Your task to perform on an android device: turn on location history Image 0: 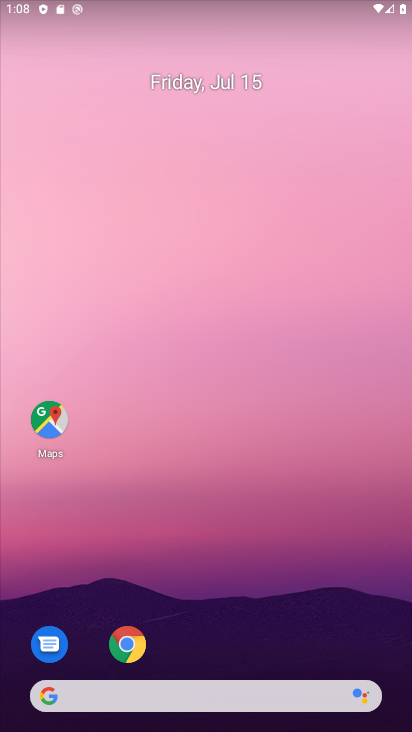
Step 0: press home button
Your task to perform on an android device: turn on location history Image 1: 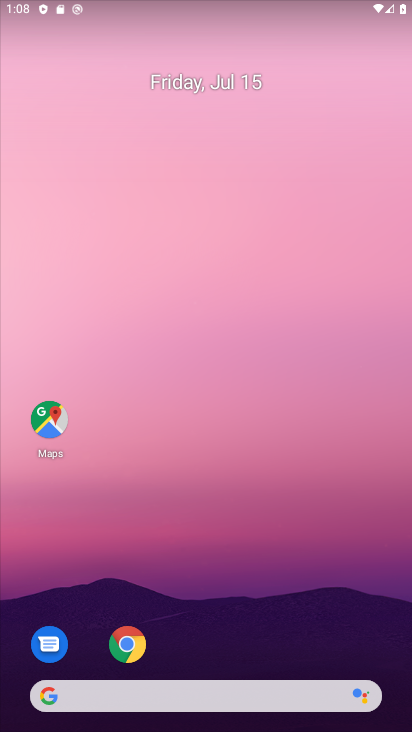
Step 1: drag from (387, 677) to (285, 36)
Your task to perform on an android device: turn on location history Image 2: 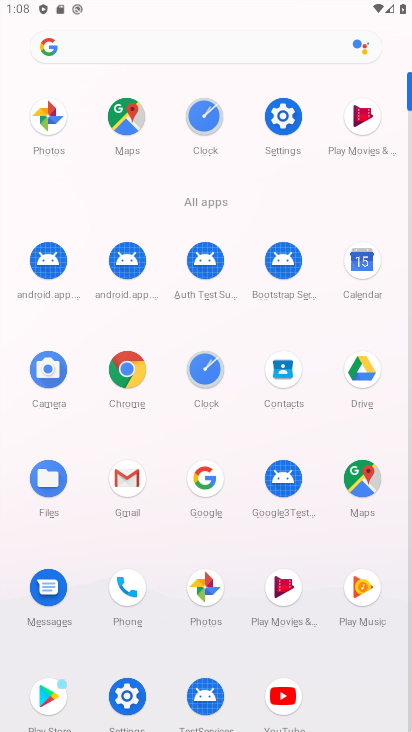
Step 2: click (281, 122)
Your task to perform on an android device: turn on location history Image 3: 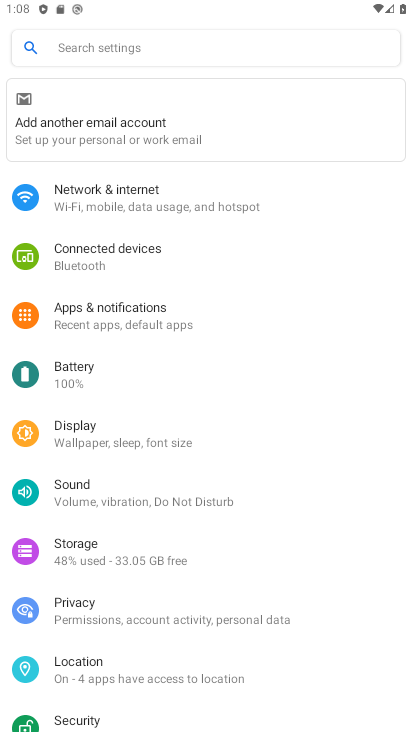
Step 3: click (84, 651)
Your task to perform on an android device: turn on location history Image 4: 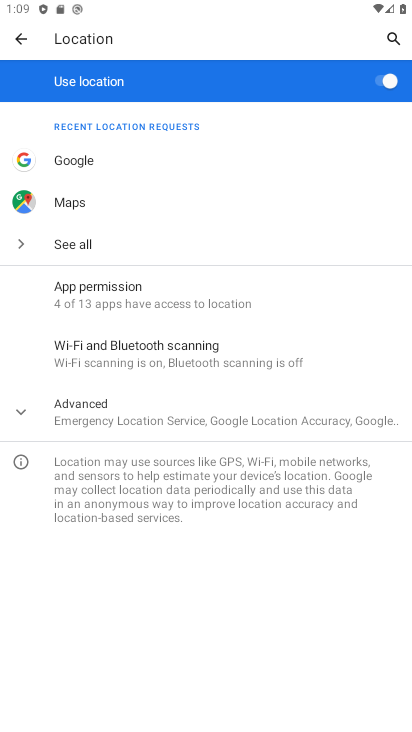
Step 4: click (29, 407)
Your task to perform on an android device: turn on location history Image 5: 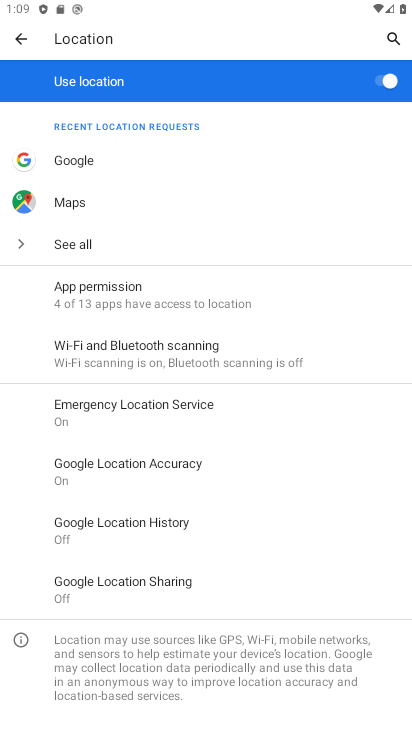
Step 5: click (89, 542)
Your task to perform on an android device: turn on location history Image 6: 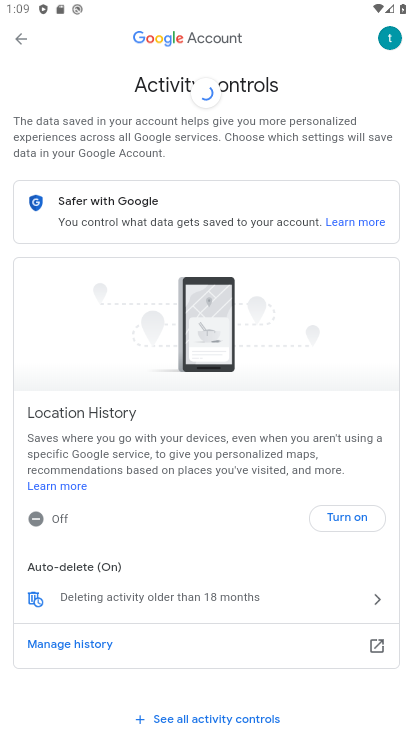
Step 6: click (53, 511)
Your task to perform on an android device: turn on location history Image 7: 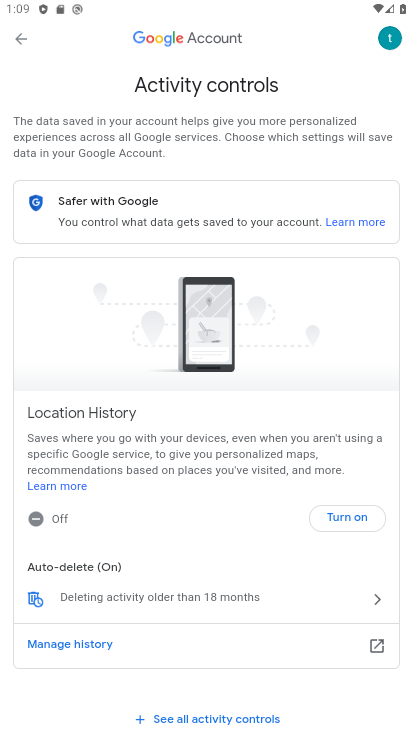
Step 7: click (352, 514)
Your task to perform on an android device: turn on location history Image 8: 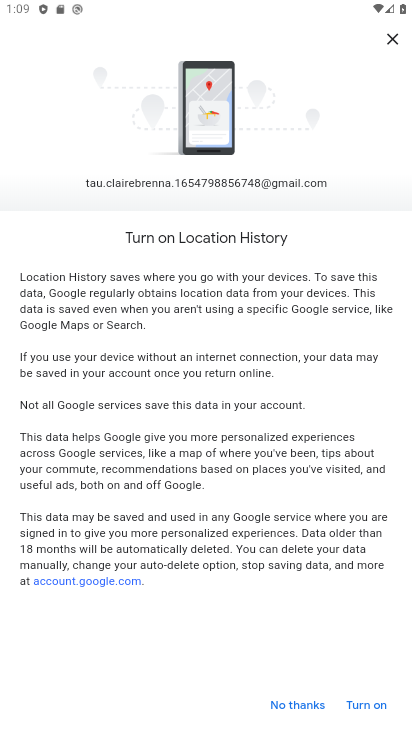
Step 8: drag from (232, 634) to (219, 297)
Your task to perform on an android device: turn on location history Image 9: 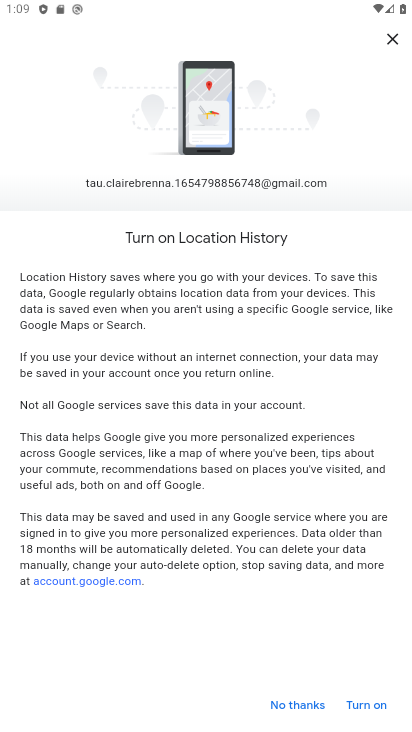
Step 9: click (368, 711)
Your task to perform on an android device: turn on location history Image 10: 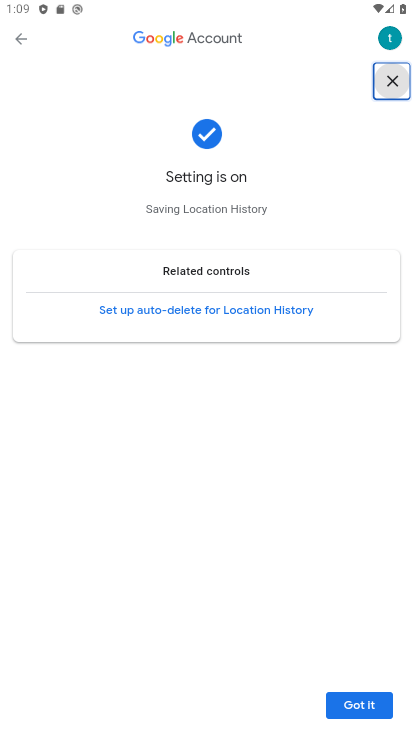
Step 10: click (353, 698)
Your task to perform on an android device: turn on location history Image 11: 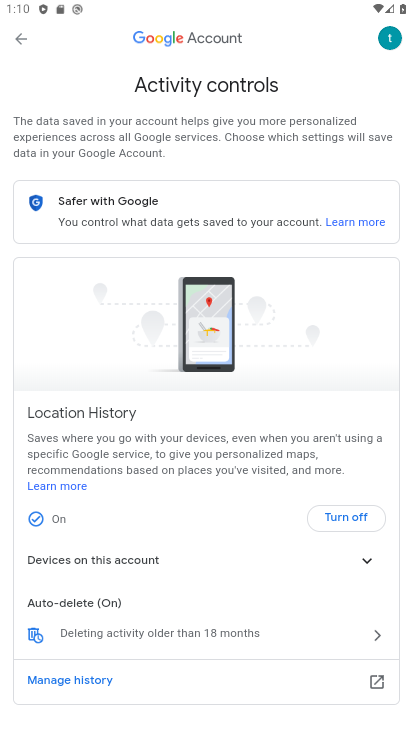
Step 11: task complete